Your task to perform on an android device: turn notification dots on Image 0: 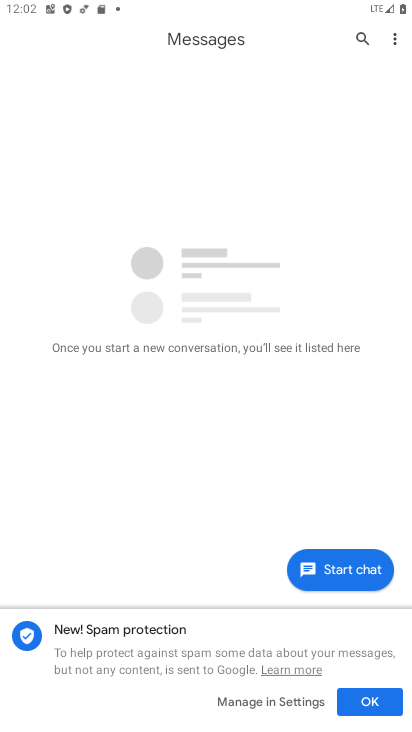
Step 0: press home button
Your task to perform on an android device: turn notification dots on Image 1: 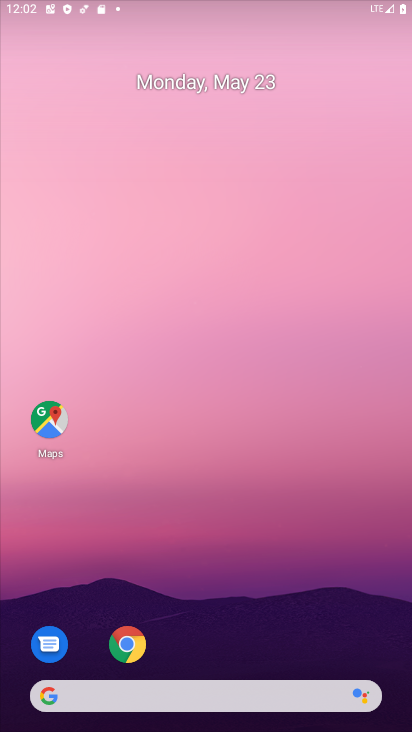
Step 1: drag from (351, 638) to (270, 91)
Your task to perform on an android device: turn notification dots on Image 2: 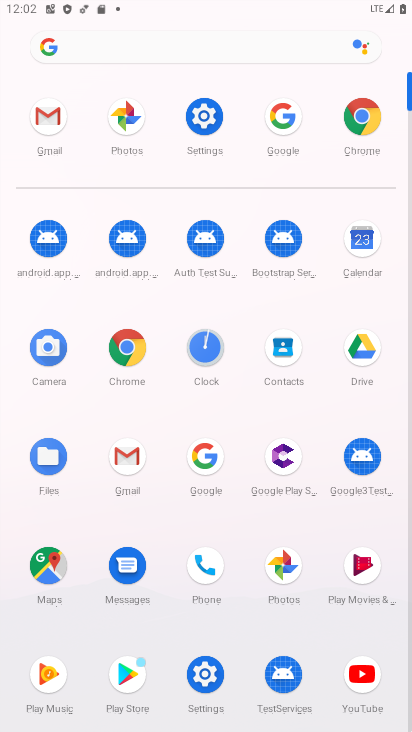
Step 2: click (212, 143)
Your task to perform on an android device: turn notification dots on Image 3: 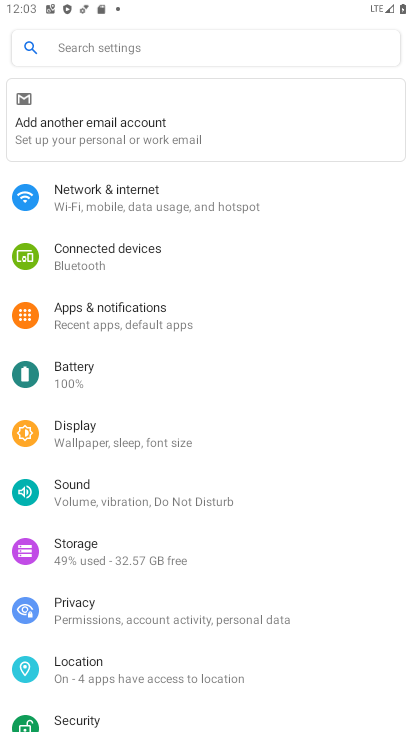
Step 3: click (129, 311)
Your task to perform on an android device: turn notification dots on Image 4: 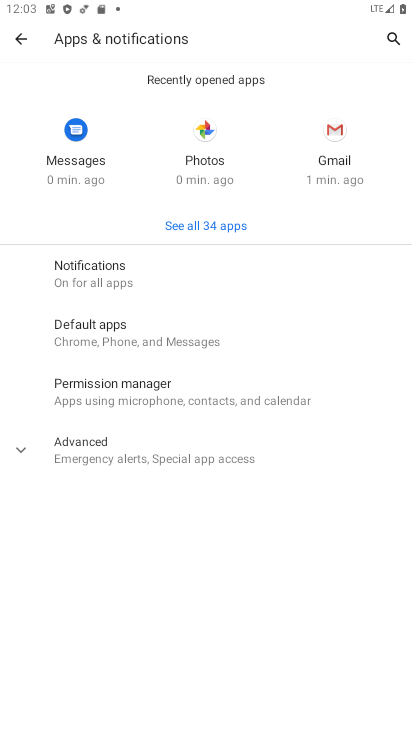
Step 4: click (22, 453)
Your task to perform on an android device: turn notification dots on Image 5: 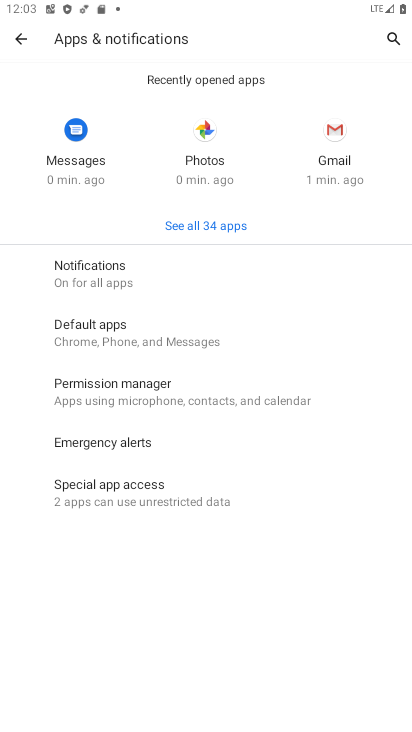
Step 5: click (114, 267)
Your task to perform on an android device: turn notification dots on Image 6: 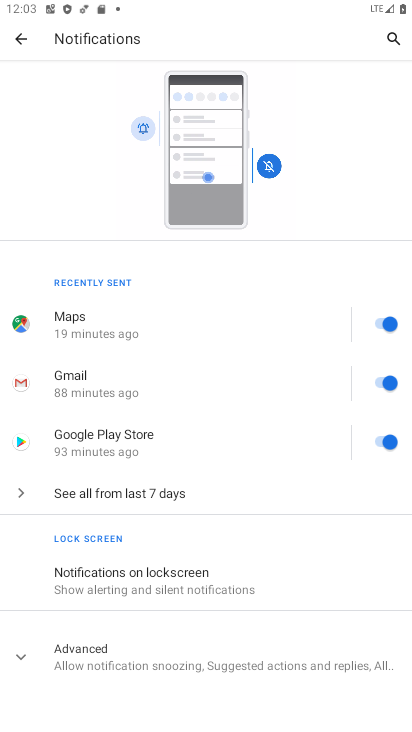
Step 6: click (134, 652)
Your task to perform on an android device: turn notification dots on Image 7: 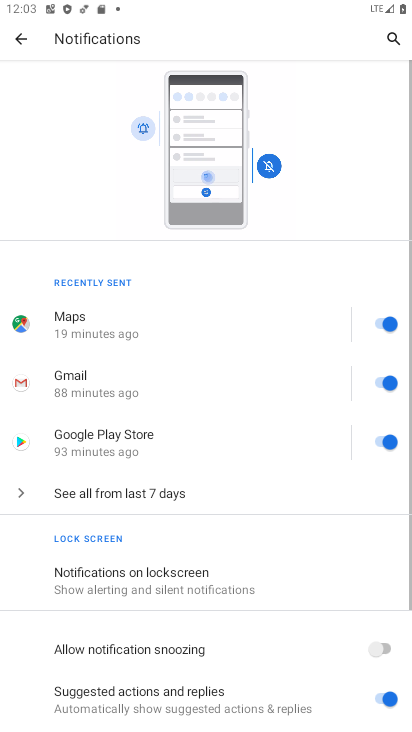
Step 7: task complete